Your task to perform on an android device: search for starred emails in the gmail app Image 0: 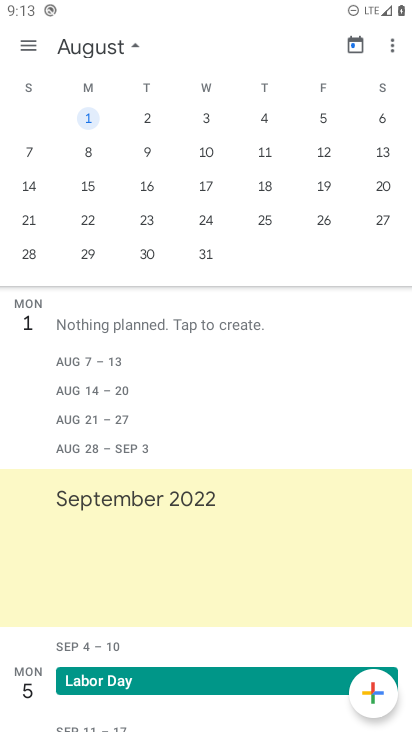
Step 0: press home button
Your task to perform on an android device: search for starred emails in the gmail app Image 1: 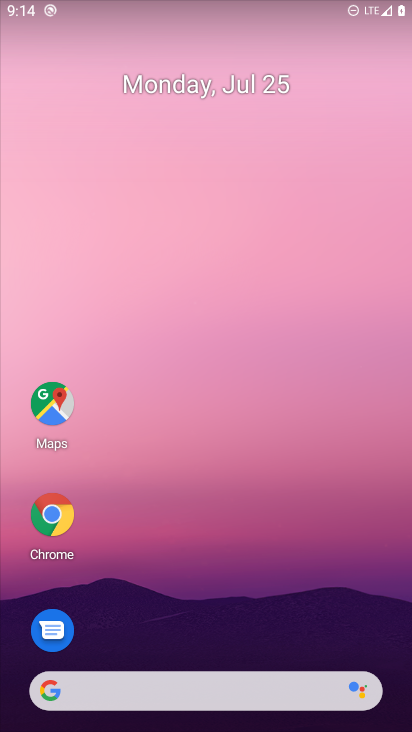
Step 1: drag from (14, 709) to (203, 129)
Your task to perform on an android device: search for starred emails in the gmail app Image 2: 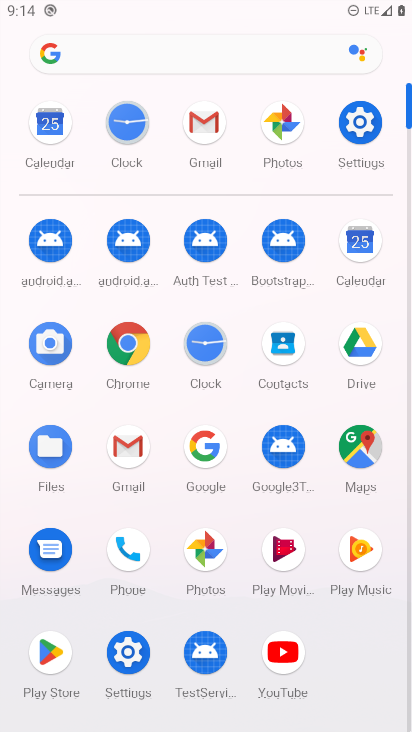
Step 2: click (124, 453)
Your task to perform on an android device: search for starred emails in the gmail app Image 3: 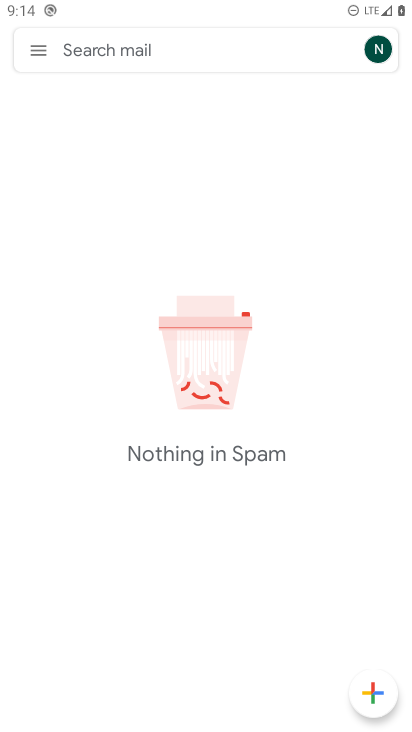
Step 3: click (34, 48)
Your task to perform on an android device: search for starred emails in the gmail app Image 4: 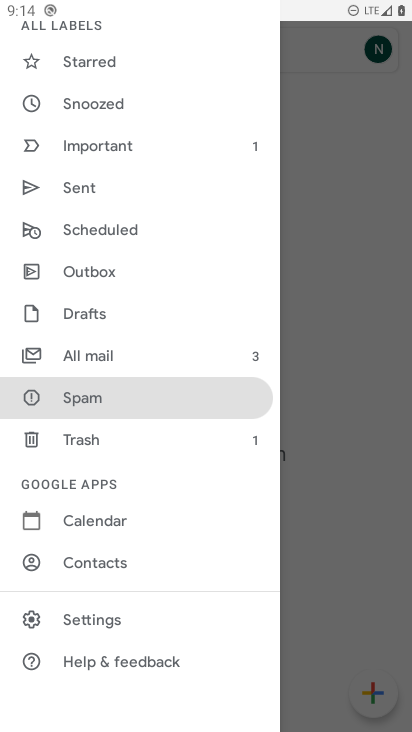
Step 4: click (106, 67)
Your task to perform on an android device: search for starred emails in the gmail app Image 5: 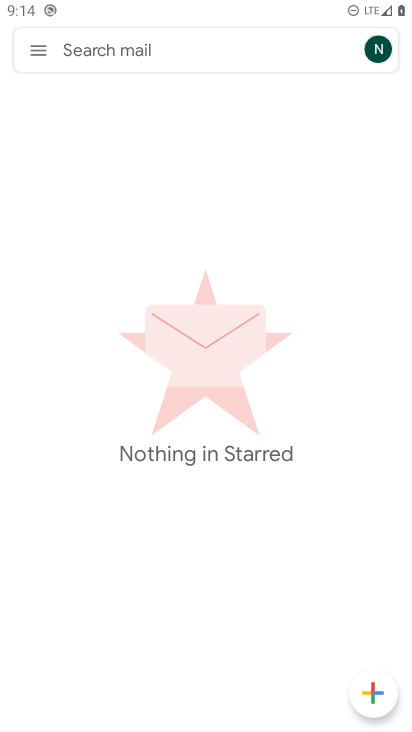
Step 5: task complete